Your task to perform on an android device: turn smart compose on in the gmail app Image 0: 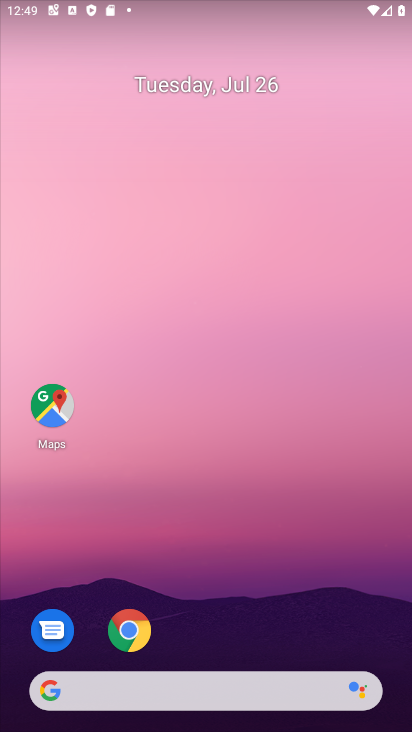
Step 0: drag from (393, 655) to (331, 178)
Your task to perform on an android device: turn smart compose on in the gmail app Image 1: 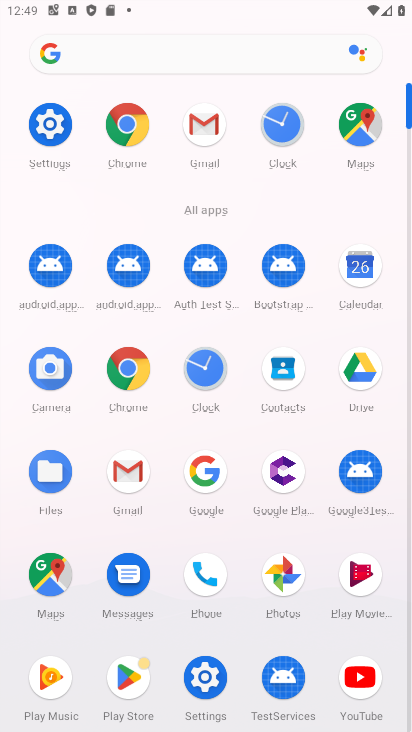
Step 1: click (126, 472)
Your task to perform on an android device: turn smart compose on in the gmail app Image 2: 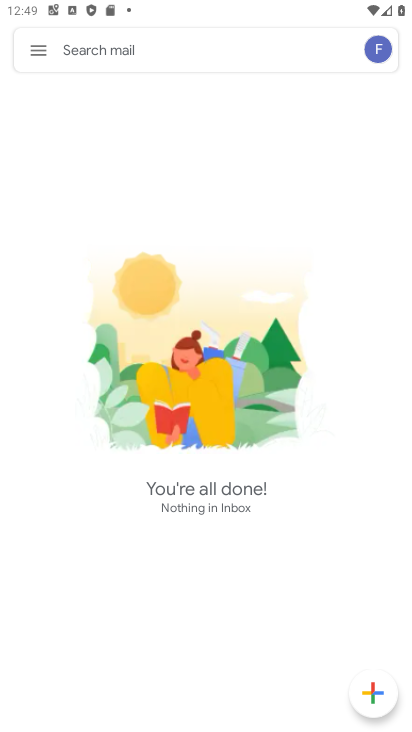
Step 2: click (33, 53)
Your task to perform on an android device: turn smart compose on in the gmail app Image 3: 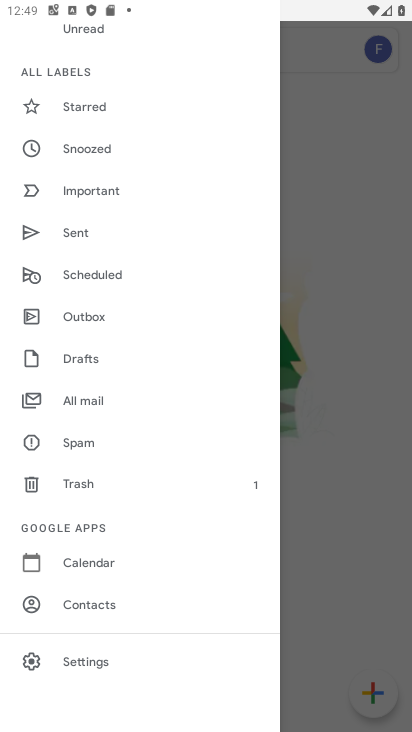
Step 3: click (80, 656)
Your task to perform on an android device: turn smart compose on in the gmail app Image 4: 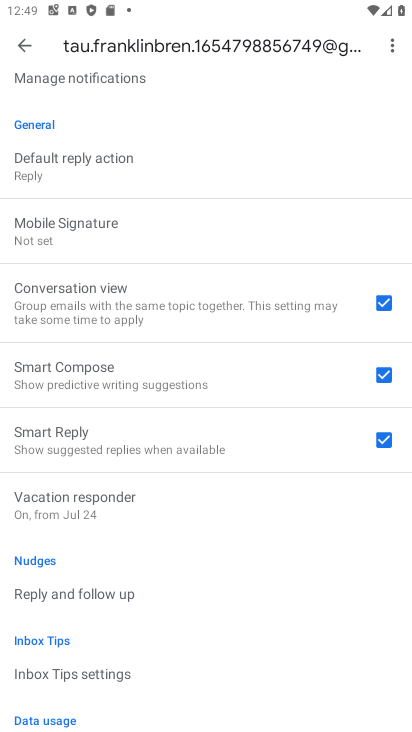
Step 4: task complete